Your task to perform on an android device: Open CNN.com Image 0: 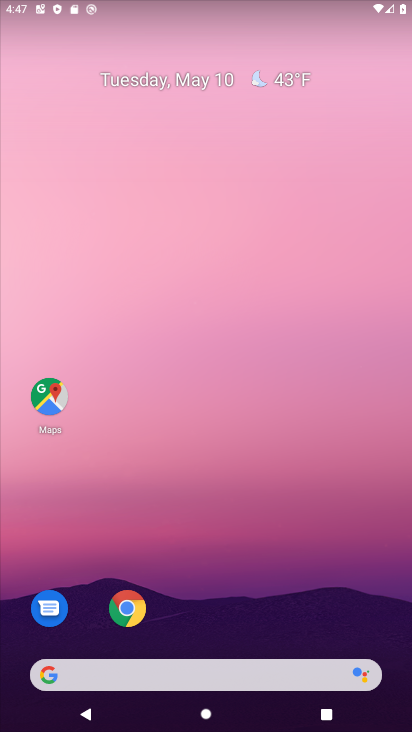
Step 0: click (119, 603)
Your task to perform on an android device: Open CNN.com Image 1: 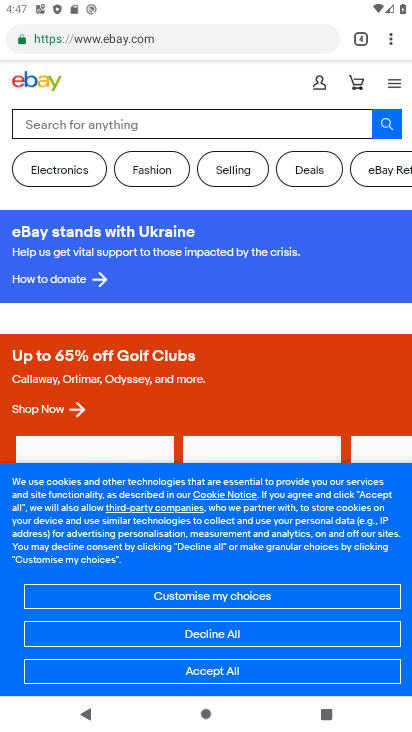
Step 1: click (362, 42)
Your task to perform on an android device: Open CNN.com Image 2: 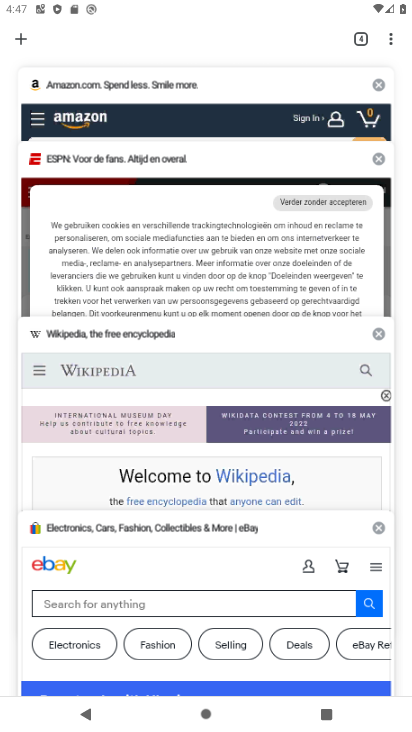
Step 2: click (9, 34)
Your task to perform on an android device: Open CNN.com Image 3: 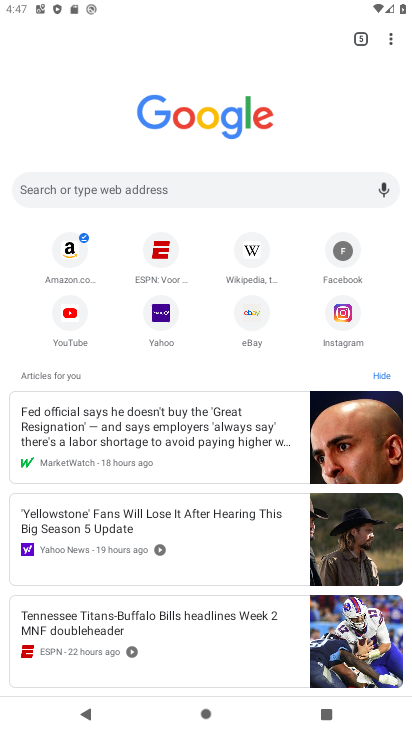
Step 3: click (144, 182)
Your task to perform on an android device: Open CNN.com Image 4: 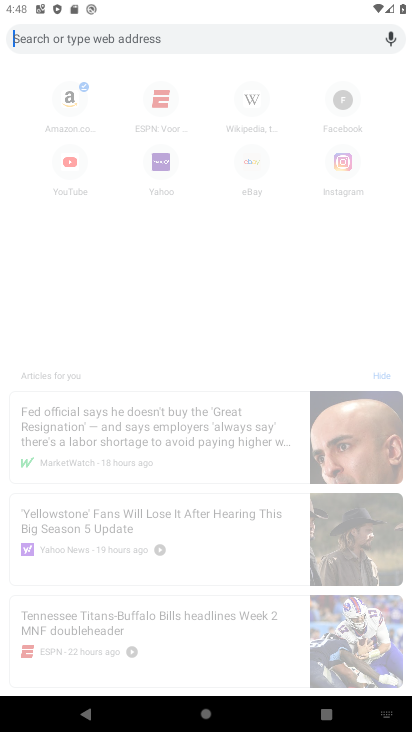
Step 4: type "cnn.com"
Your task to perform on an android device: Open CNN.com Image 5: 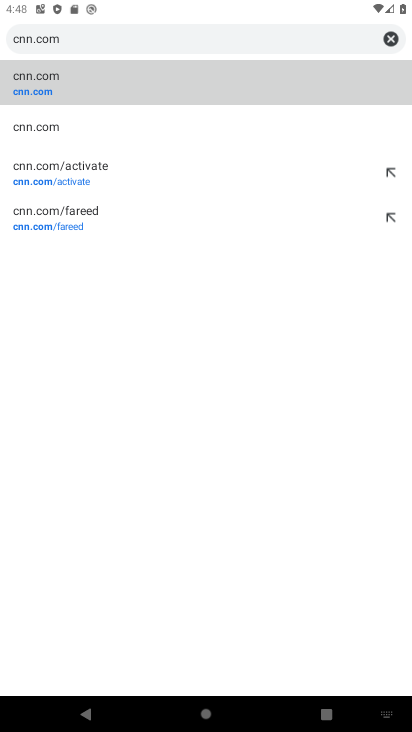
Step 5: click (98, 77)
Your task to perform on an android device: Open CNN.com Image 6: 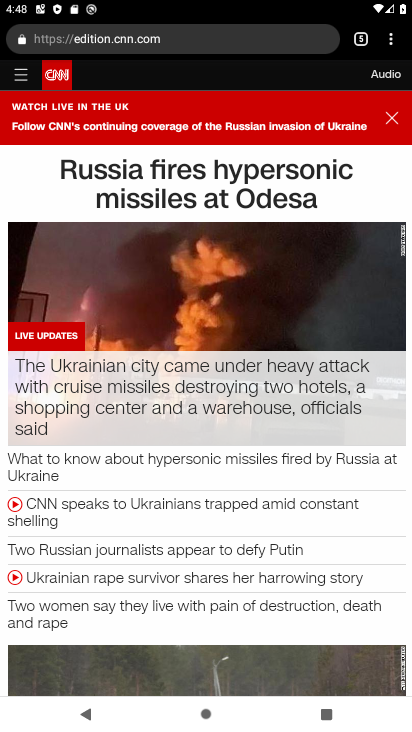
Step 6: task complete